Your task to perform on an android device: change text size in settings app Image 0: 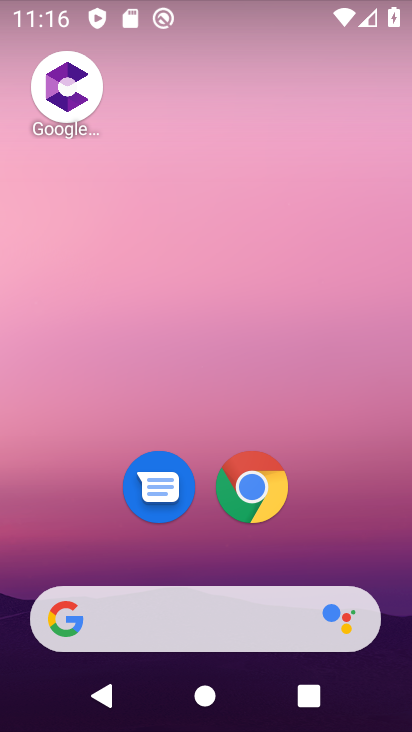
Step 0: drag from (58, 580) to (144, 162)
Your task to perform on an android device: change text size in settings app Image 1: 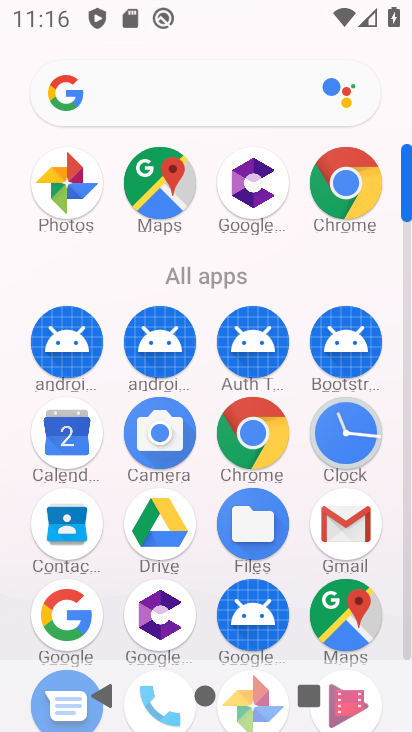
Step 1: drag from (153, 571) to (286, 69)
Your task to perform on an android device: change text size in settings app Image 2: 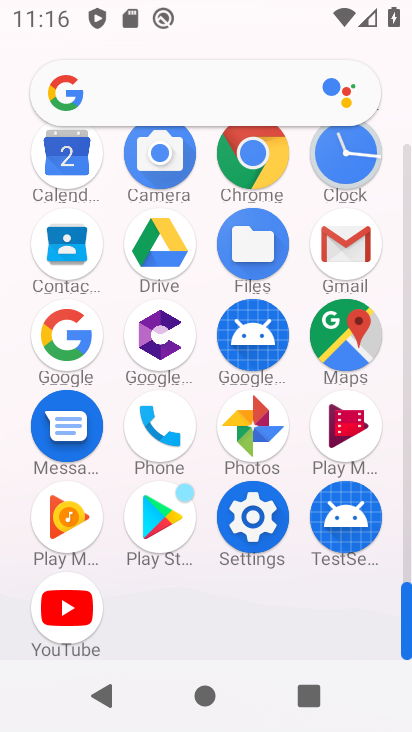
Step 2: click (262, 512)
Your task to perform on an android device: change text size in settings app Image 3: 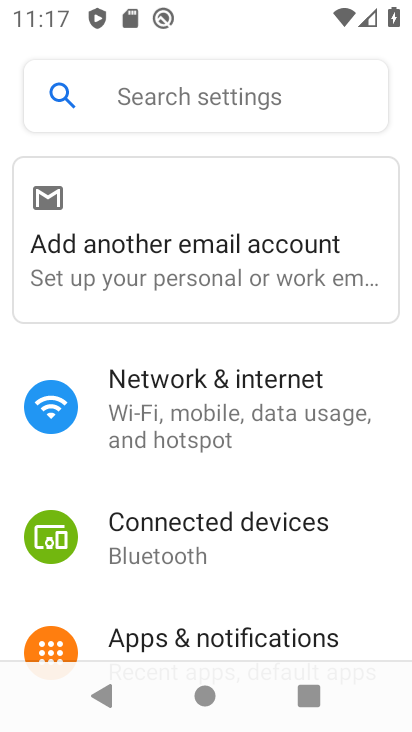
Step 3: drag from (170, 667) to (269, 304)
Your task to perform on an android device: change text size in settings app Image 4: 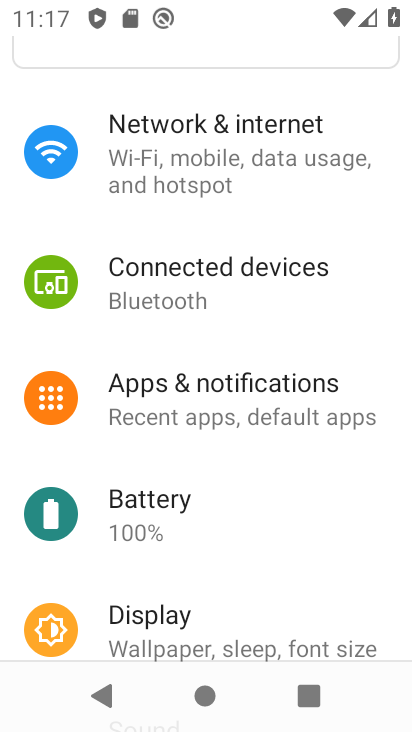
Step 4: click (176, 610)
Your task to perform on an android device: change text size in settings app Image 5: 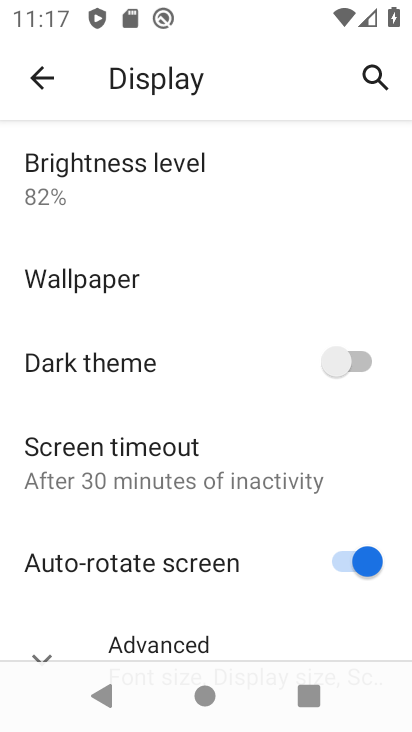
Step 5: drag from (129, 626) to (214, 319)
Your task to perform on an android device: change text size in settings app Image 6: 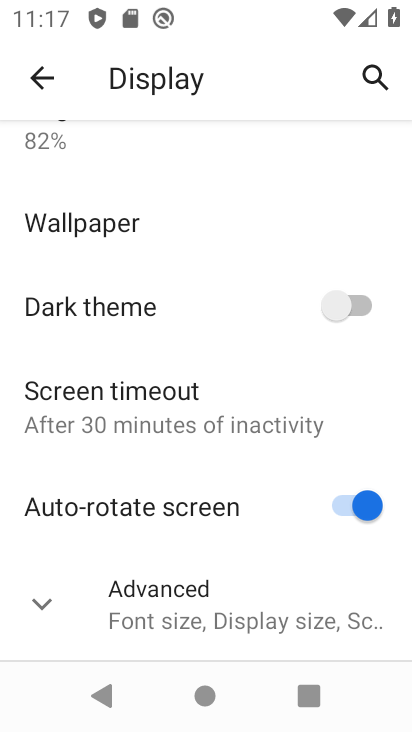
Step 6: click (162, 583)
Your task to perform on an android device: change text size in settings app Image 7: 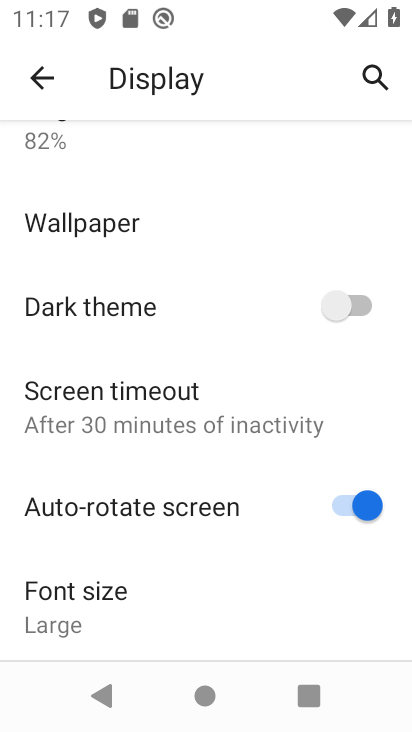
Step 7: drag from (172, 570) to (215, 367)
Your task to perform on an android device: change text size in settings app Image 8: 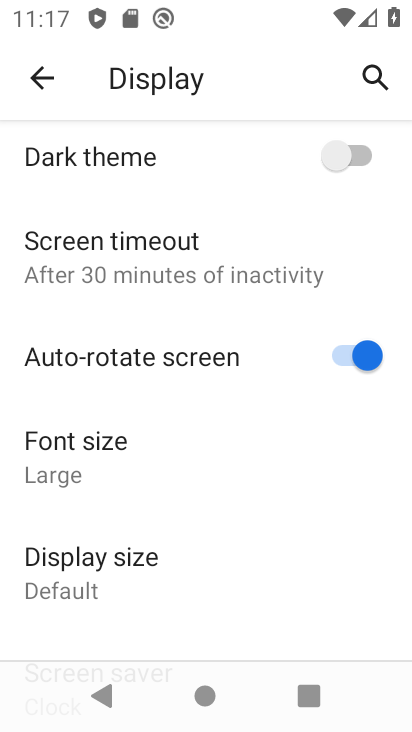
Step 8: click (136, 472)
Your task to perform on an android device: change text size in settings app Image 9: 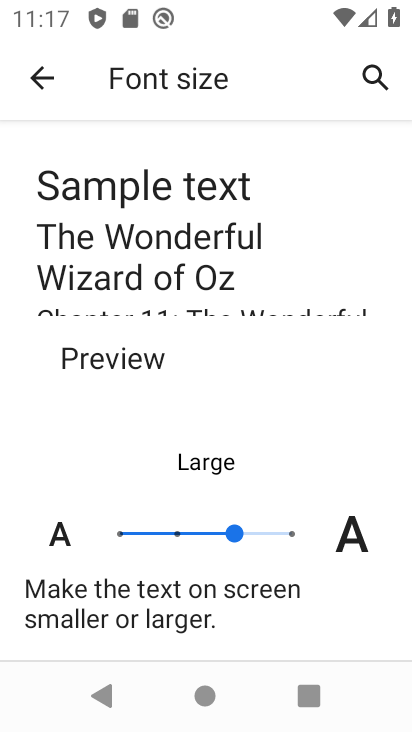
Step 9: click (175, 532)
Your task to perform on an android device: change text size in settings app Image 10: 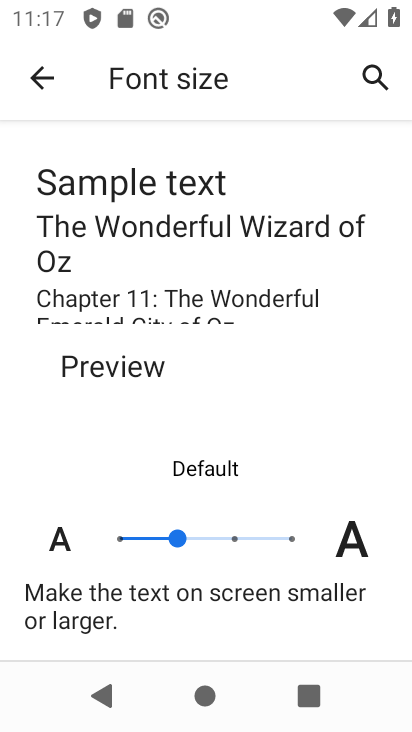
Step 10: task complete